Your task to perform on an android device: Search for a coffee table on IKEA Image 0: 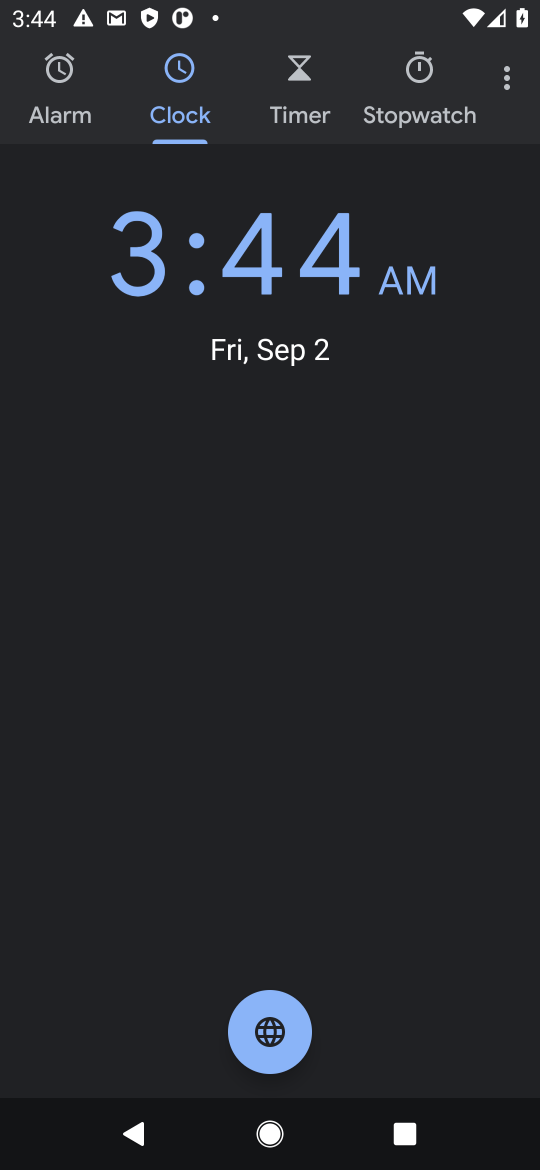
Step 0: press home button
Your task to perform on an android device: Search for a coffee table on IKEA Image 1: 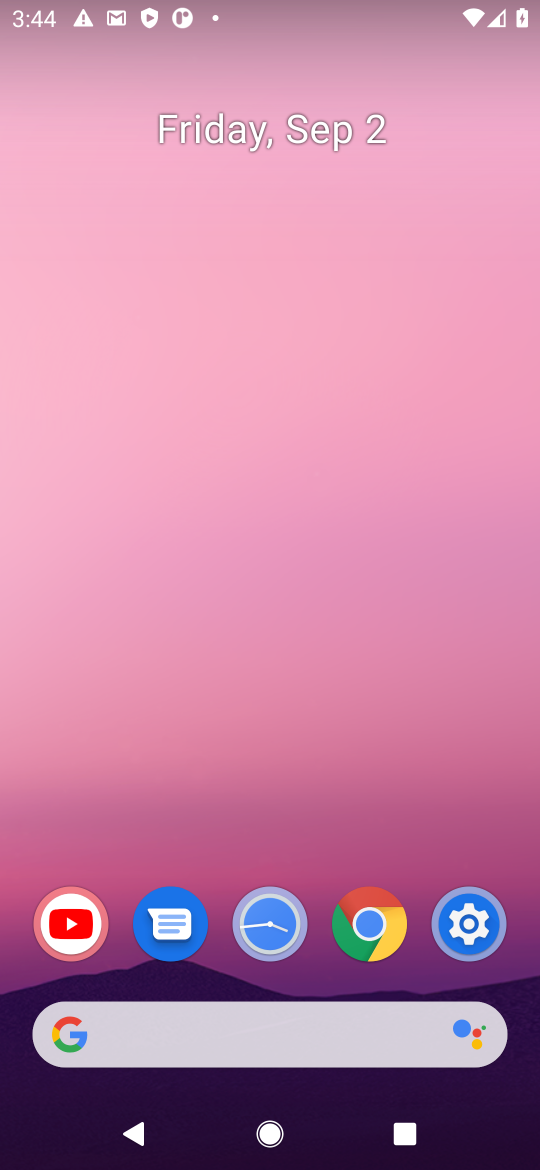
Step 1: click (383, 1027)
Your task to perform on an android device: Search for a coffee table on IKEA Image 2: 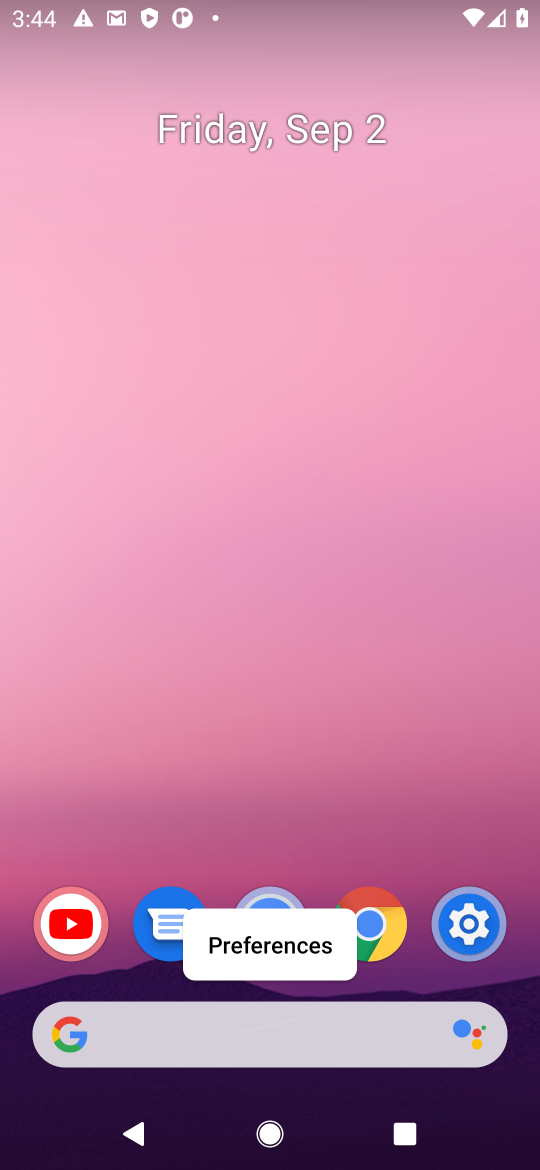
Step 2: click (349, 1026)
Your task to perform on an android device: Search for a coffee table on IKEA Image 3: 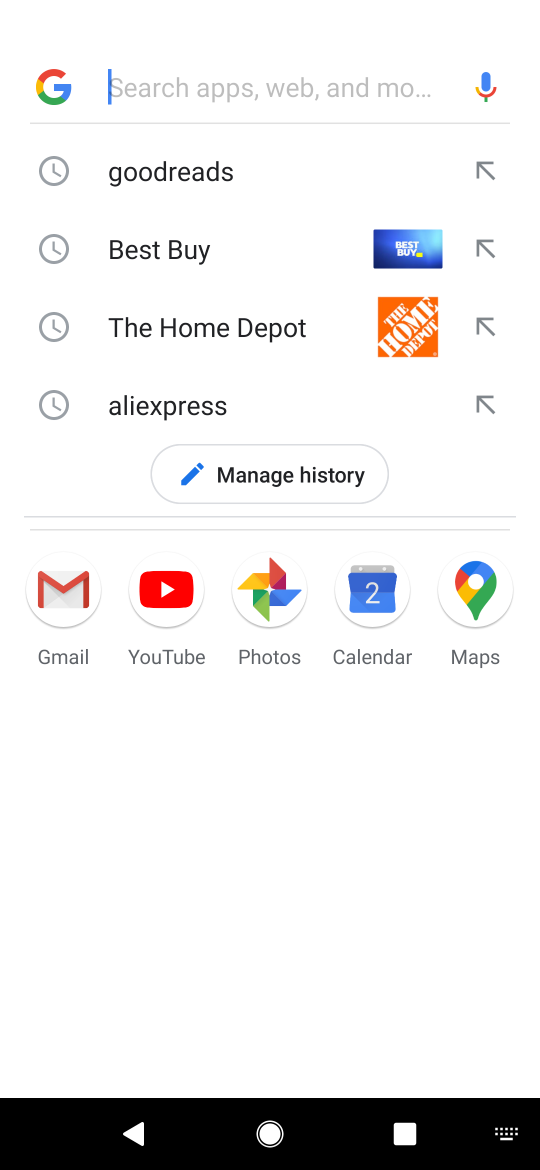
Step 3: press enter
Your task to perform on an android device: Search for a coffee table on IKEA Image 4: 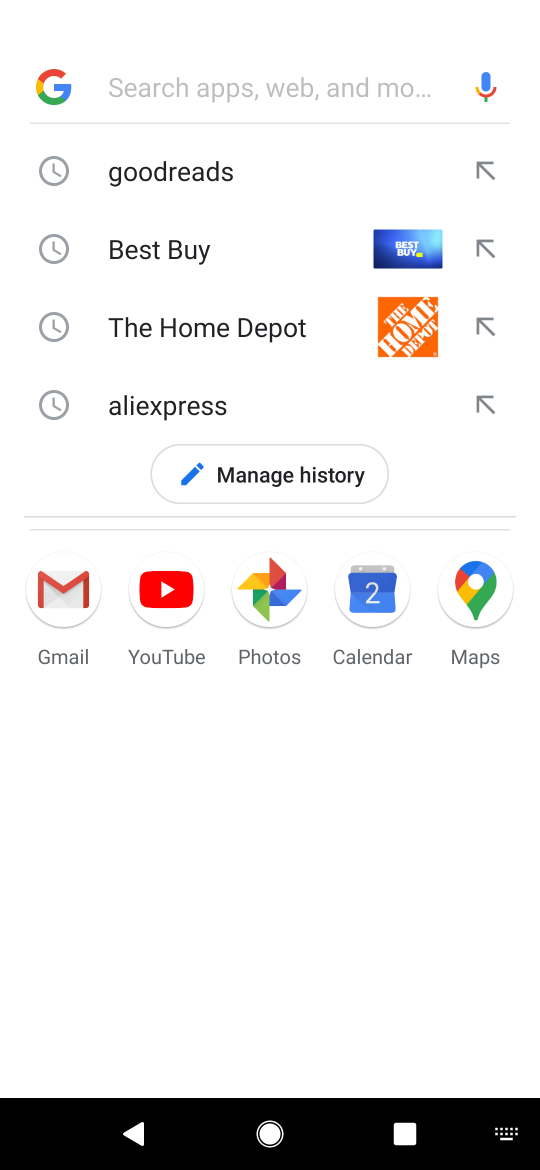
Step 4: type "ikea"
Your task to perform on an android device: Search for a coffee table on IKEA Image 5: 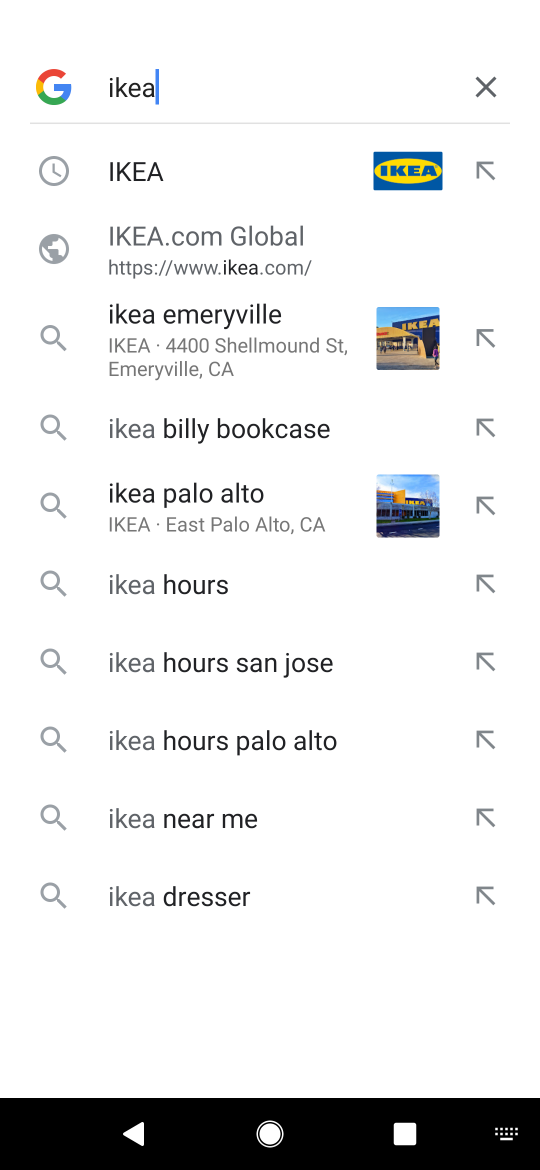
Step 5: click (165, 163)
Your task to perform on an android device: Search for a coffee table on IKEA Image 6: 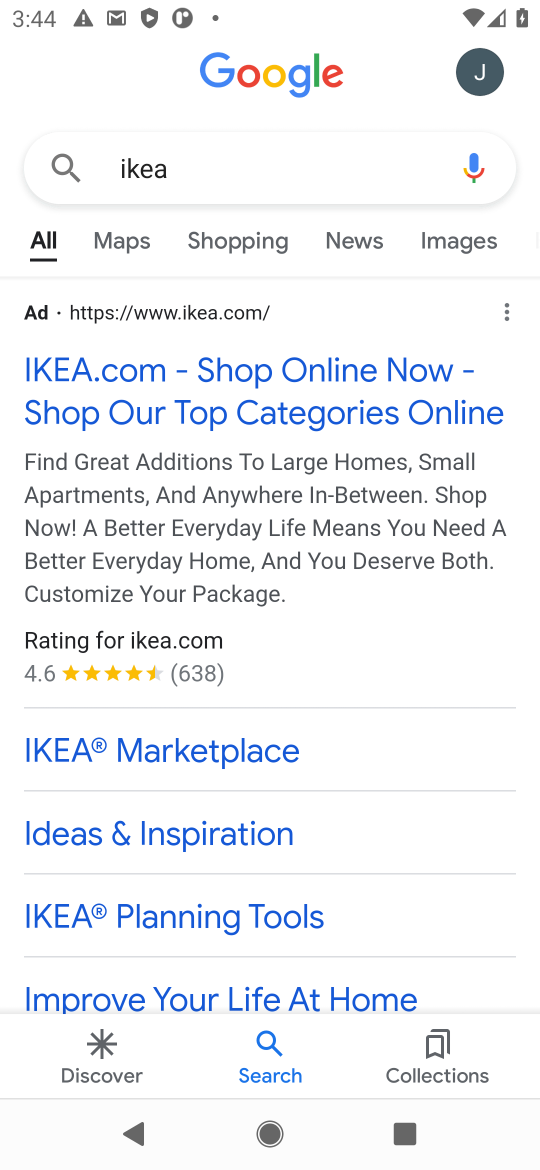
Step 6: click (301, 387)
Your task to perform on an android device: Search for a coffee table on IKEA Image 7: 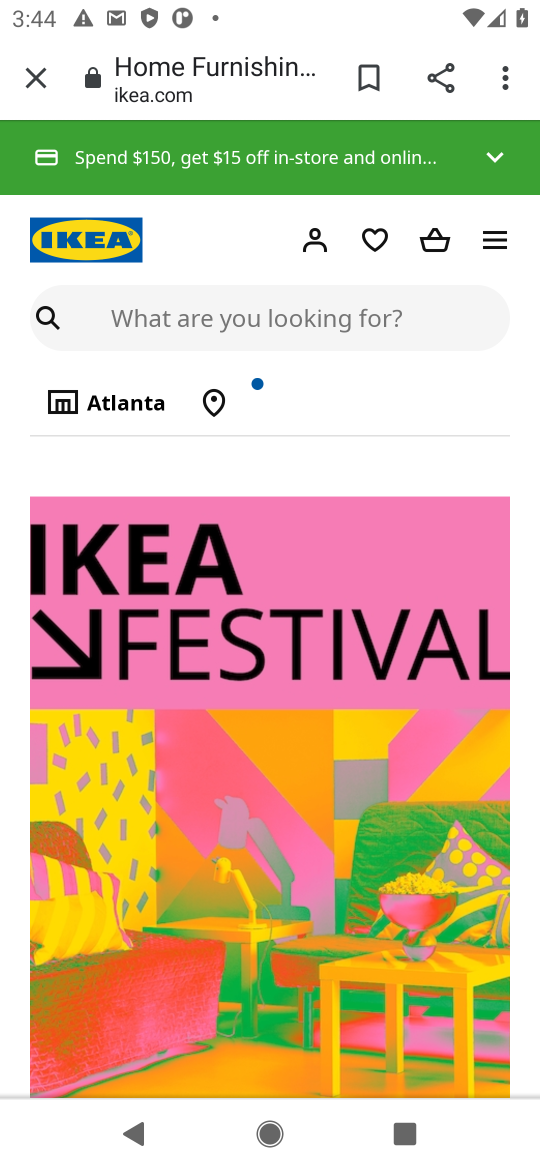
Step 7: click (275, 323)
Your task to perform on an android device: Search for a coffee table on IKEA Image 8: 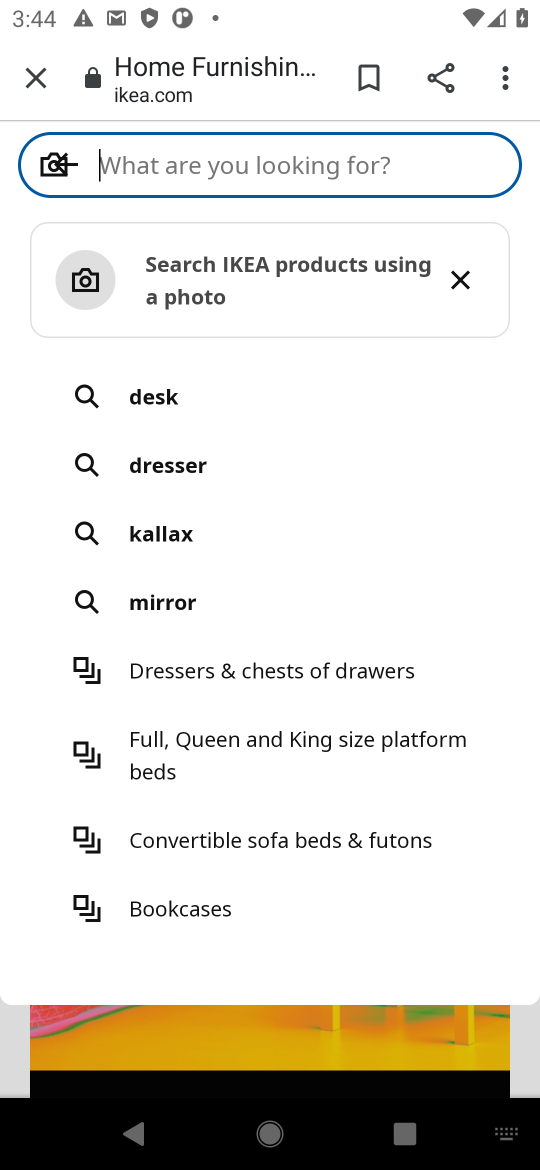
Step 8: press enter
Your task to perform on an android device: Search for a coffee table on IKEA Image 9: 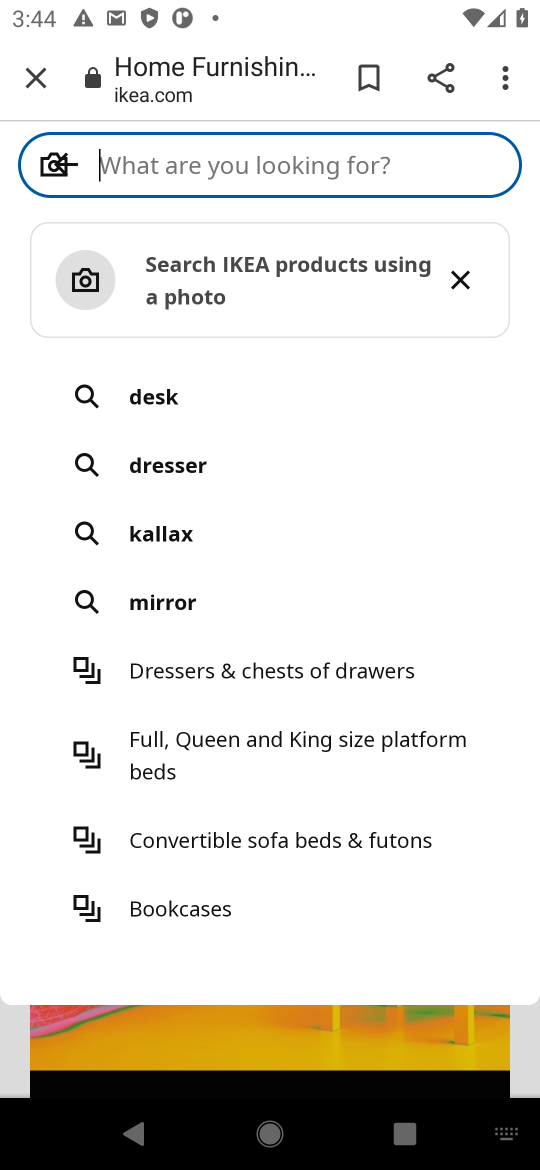
Step 9: type "coffee table"
Your task to perform on an android device: Search for a coffee table on IKEA Image 10: 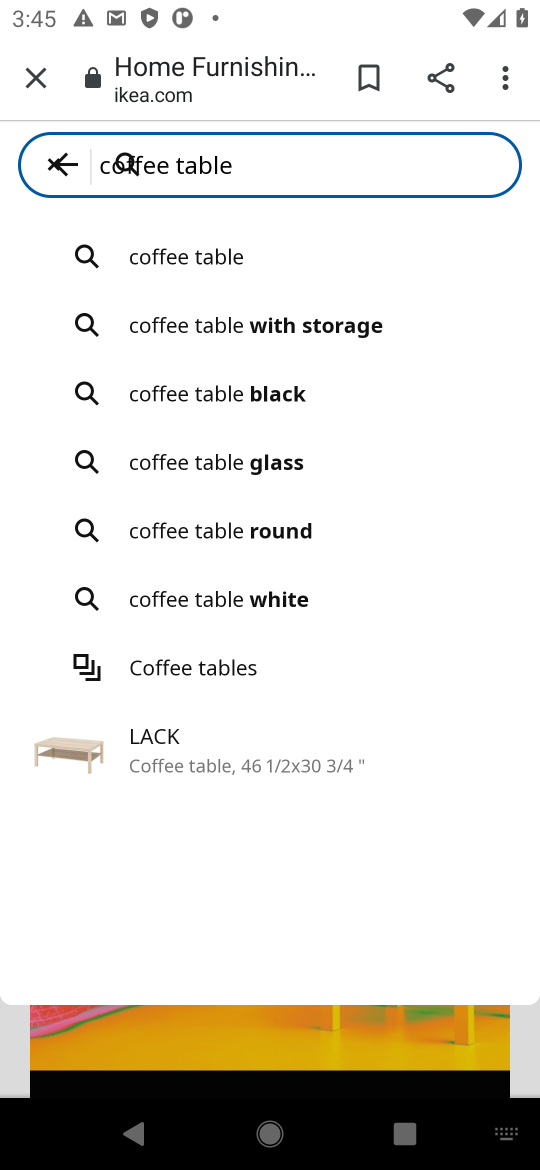
Step 10: click (218, 250)
Your task to perform on an android device: Search for a coffee table on IKEA Image 11: 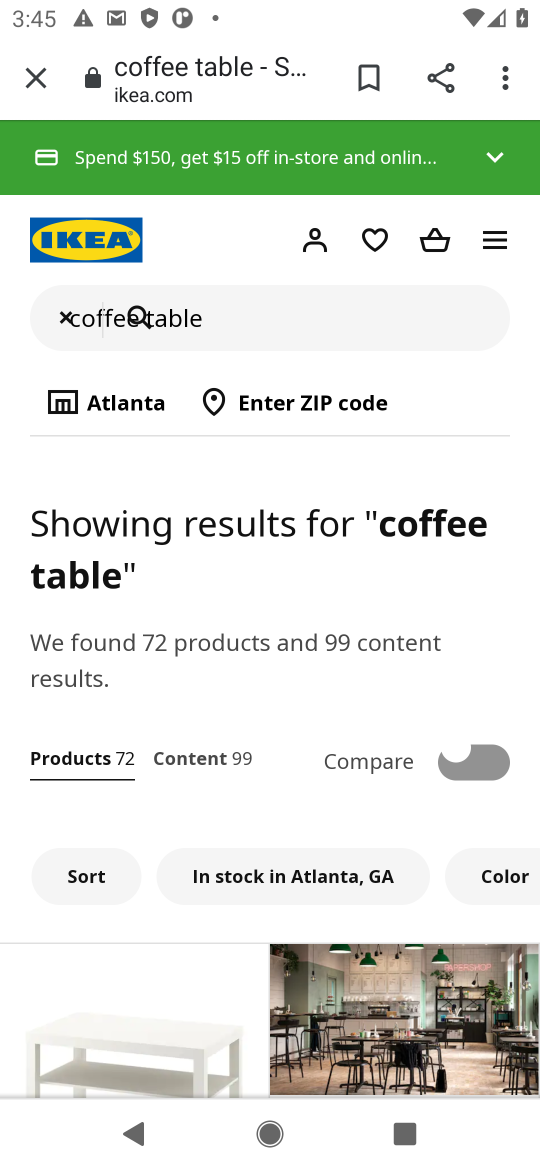
Step 11: task complete